Your task to perform on an android device: turn on translation in the chrome app Image 0: 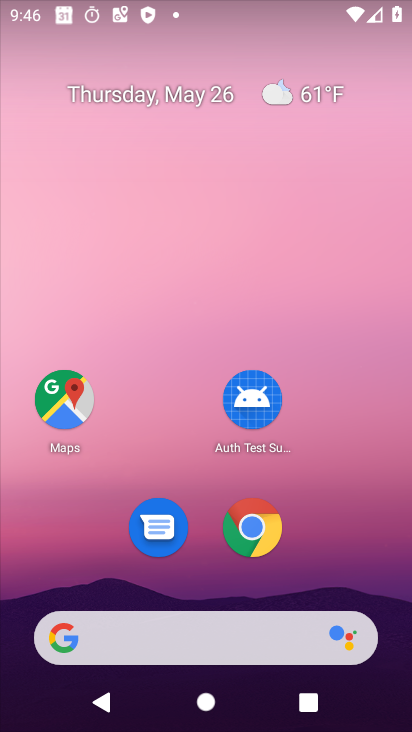
Step 0: drag from (376, 540) to (373, 39)
Your task to perform on an android device: turn on translation in the chrome app Image 1: 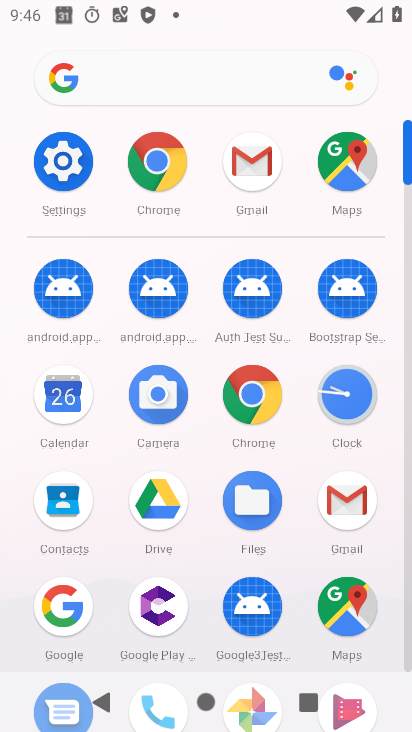
Step 1: click (159, 172)
Your task to perform on an android device: turn on translation in the chrome app Image 2: 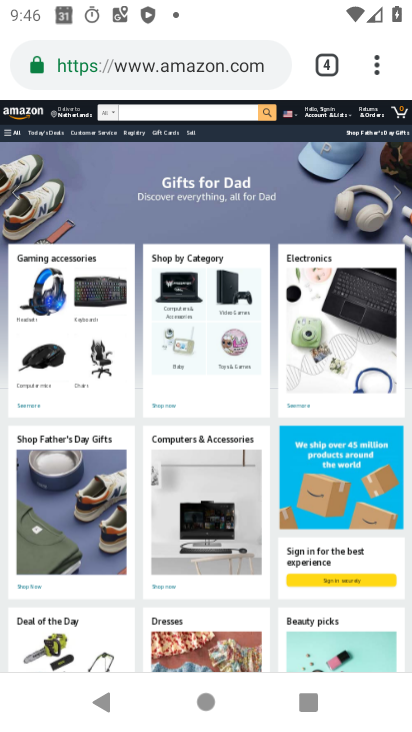
Step 2: drag from (373, 59) to (164, 571)
Your task to perform on an android device: turn on translation in the chrome app Image 3: 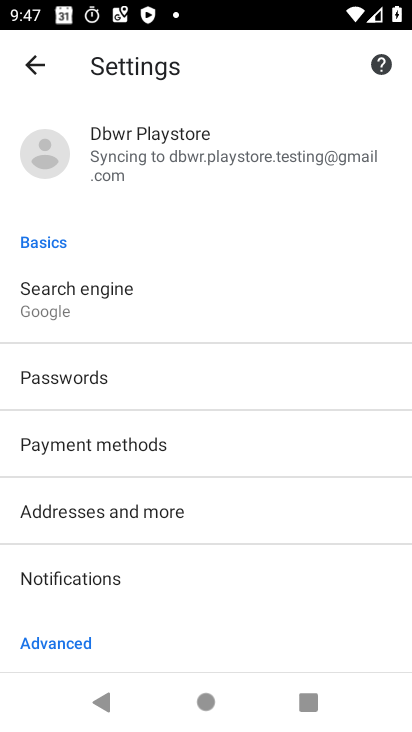
Step 3: drag from (118, 379) to (93, 179)
Your task to perform on an android device: turn on translation in the chrome app Image 4: 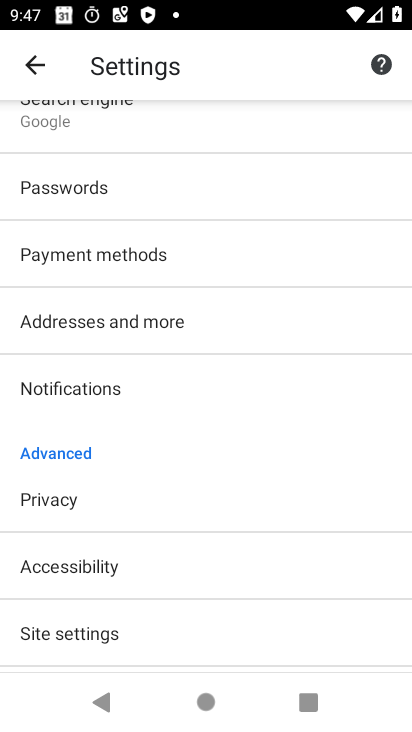
Step 4: drag from (132, 620) to (159, 104)
Your task to perform on an android device: turn on translation in the chrome app Image 5: 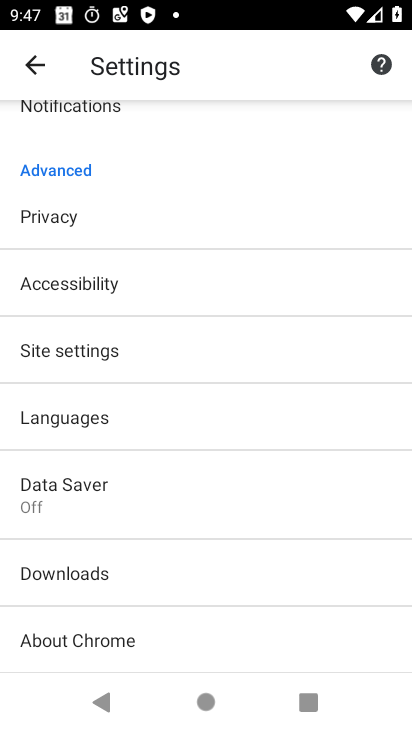
Step 5: click (110, 409)
Your task to perform on an android device: turn on translation in the chrome app Image 6: 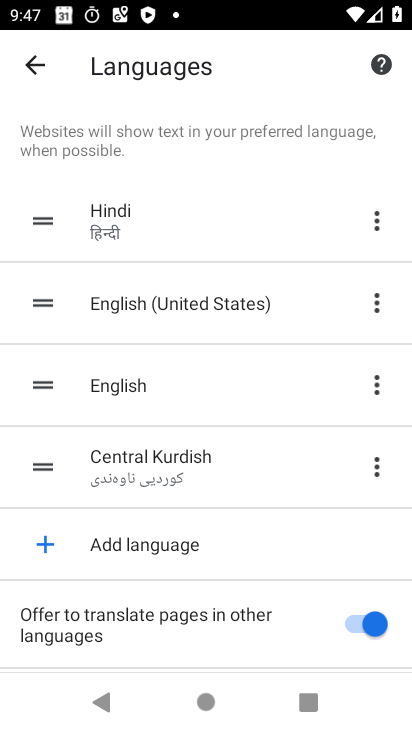
Step 6: drag from (278, 577) to (333, 361)
Your task to perform on an android device: turn on translation in the chrome app Image 7: 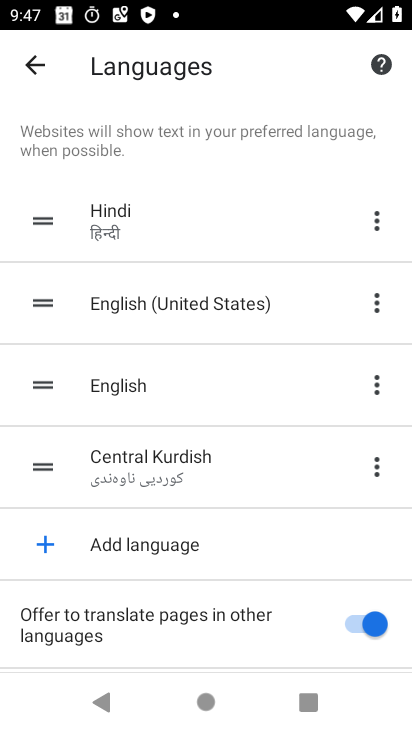
Step 7: click (367, 631)
Your task to perform on an android device: turn on translation in the chrome app Image 8: 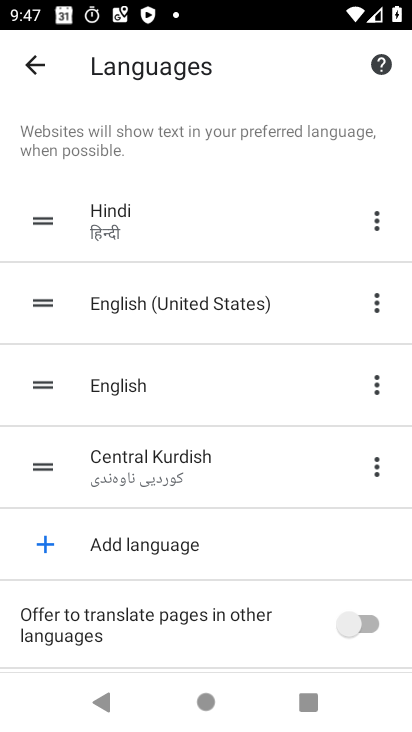
Step 8: task complete